Your task to perform on an android device: change notification settings in the gmail app Image 0: 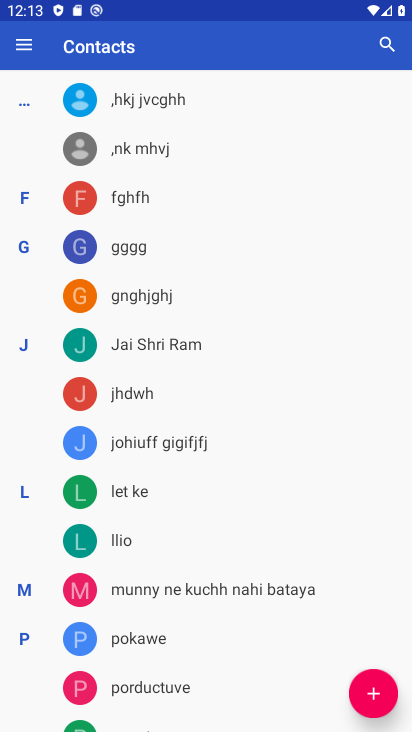
Step 0: press home button
Your task to perform on an android device: change notification settings in the gmail app Image 1: 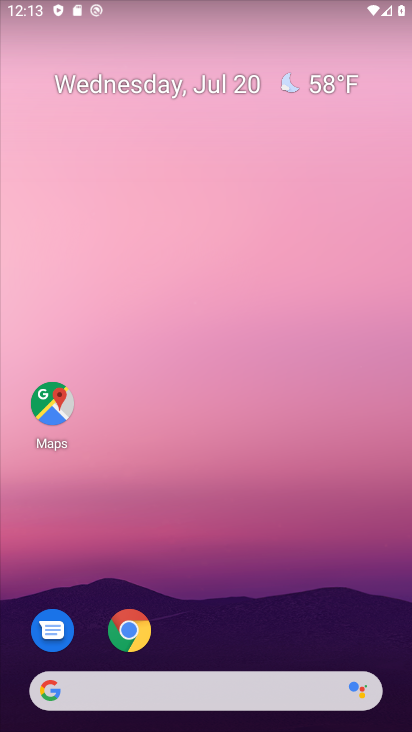
Step 1: drag from (180, 688) to (315, 225)
Your task to perform on an android device: change notification settings in the gmail app Image 2: 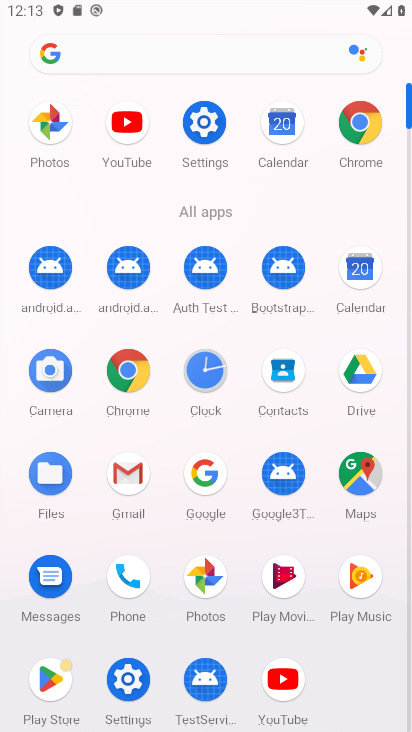
Step 2: click (130, 473)
Your task to perform on an android device: change notification settings in the gmail app Image 3: 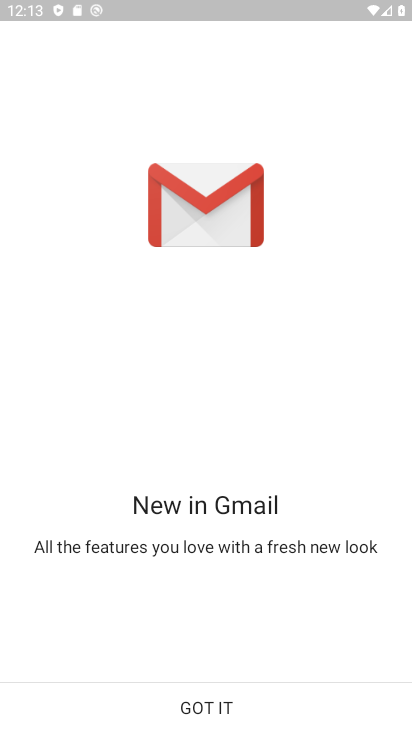
Step 3: click (198, 711)
Your task to perform on an android device: change notification settings in the gmail app Image 4: 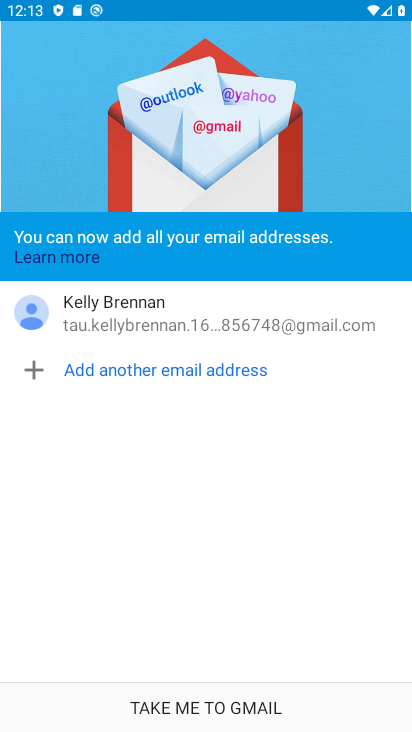
Step 4: click (198, 710)
Your task to perform on an android device: change notification settings in the gmail app Image 5: 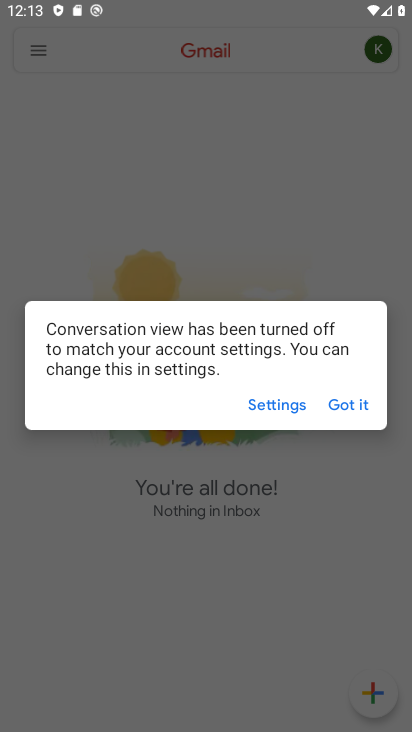
Step 5: click (348, 409)
Your task to perform on an android device: change notification settings in the gmail app Image 6: 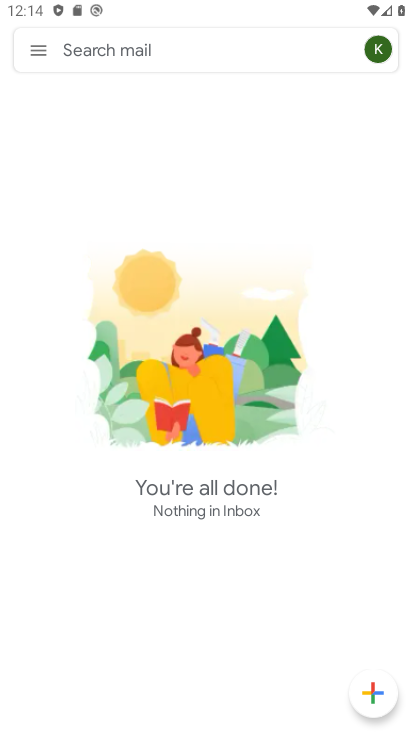
Step 6: click (36, 48)
Your task to perform on an android device: change notification settings in the gmail app Image 7: 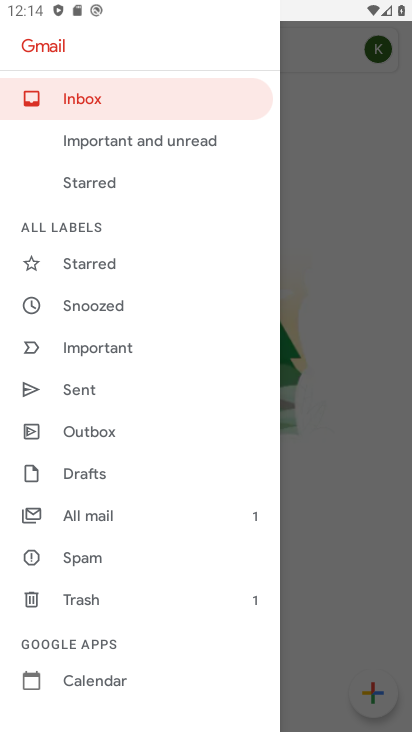
Step 7: drag from (131, 628) to (196, 227)
Your task to perform on an android device: change notification settings in the gmail app Image 8: 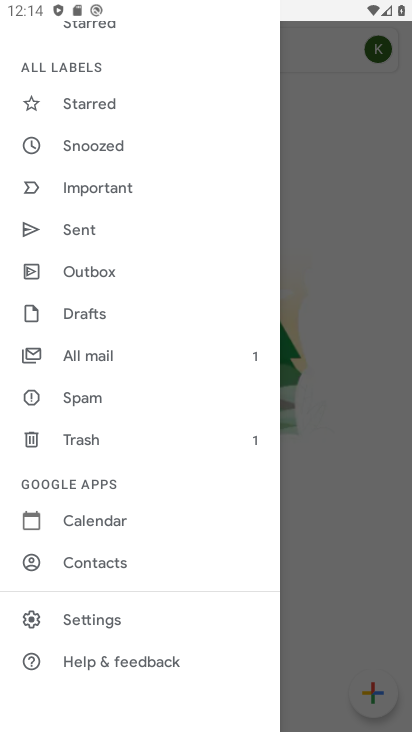
Step 8: click (92, 619)
Your task to perform on an android device: change notification settings in the gmail app Image 9: 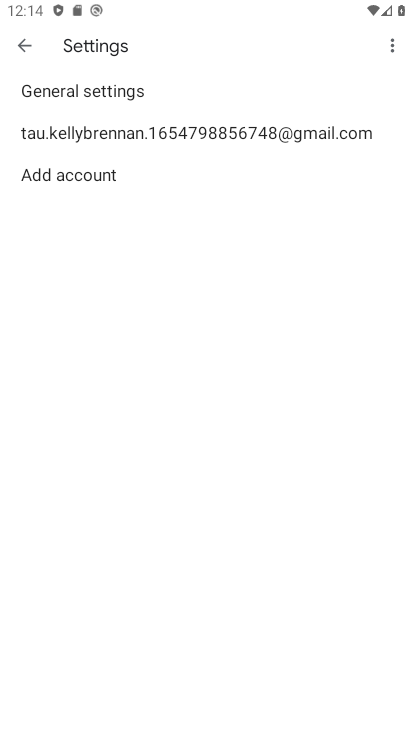
Step 9: click (236, 126)
Your task to perform on an android device: change notification settings in the gmail app Image 10: 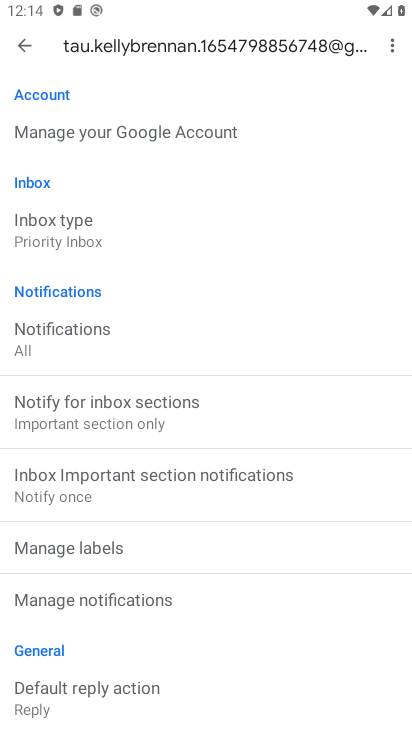
Step 10: click (68, 341)
Your task to perform on an android device: change notification settings in the gmail app Image 11: 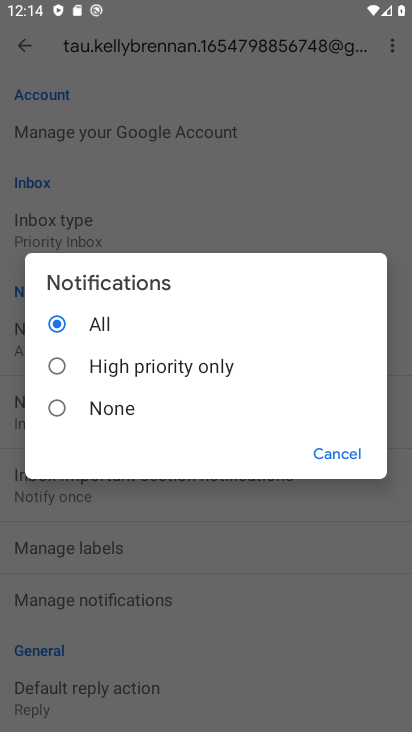
Step 11: click (58, 411)
Your task to perform on an android device: change notification settings in the gmail app Image 12: 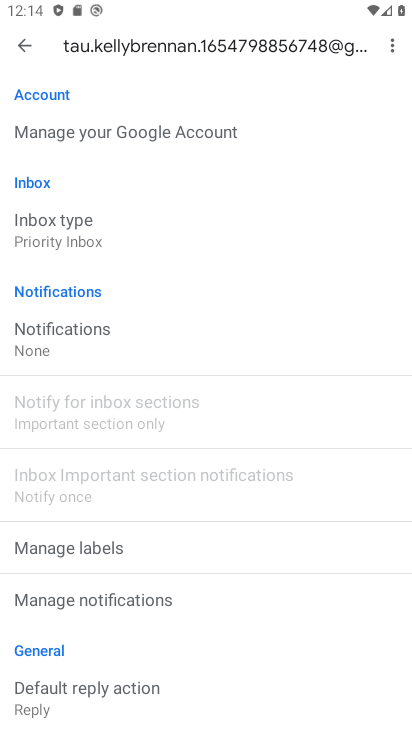
Step 12: task complete